Your task to perform on an android device: toggle sleep mode Image 0: 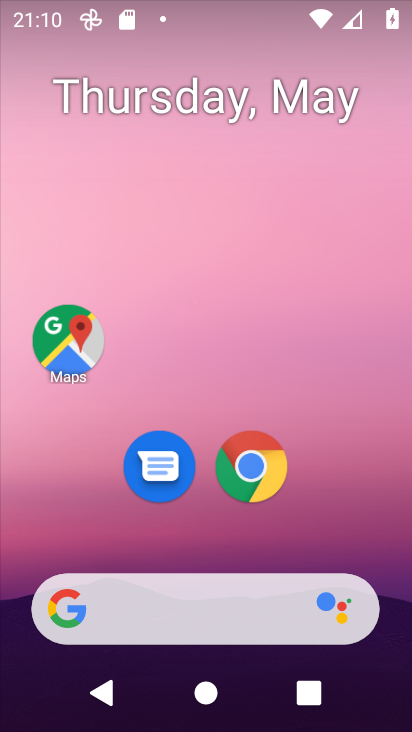
Step 0: drag from (361, 517) to (341, 5)
Your task to perform on an android device: toggle sleep mode Image 1: 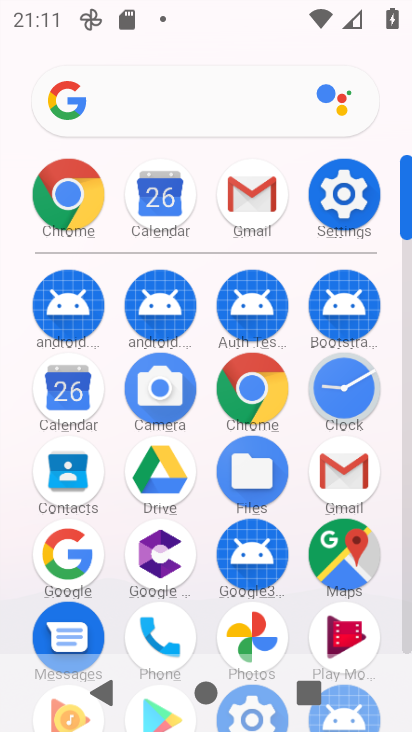
Step 1: click (341, 204)
Your task to perform on an android device: toggle sleep mode Image 2: 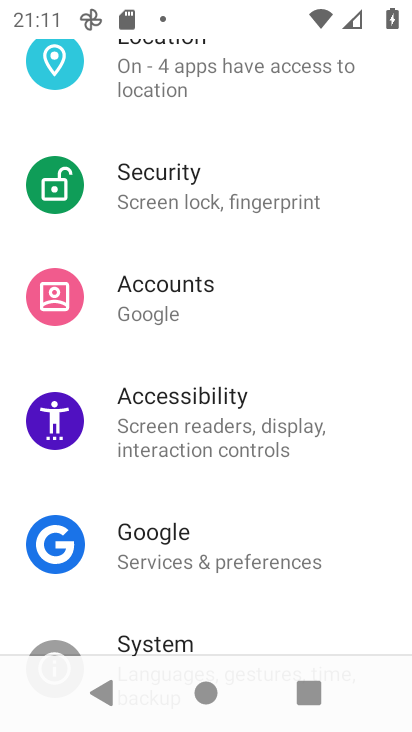
Step 2: task complete